Your task to perform on an android device: open app "Lyft - Rideshare, Bikes, Scooters & Transit" Image 0: 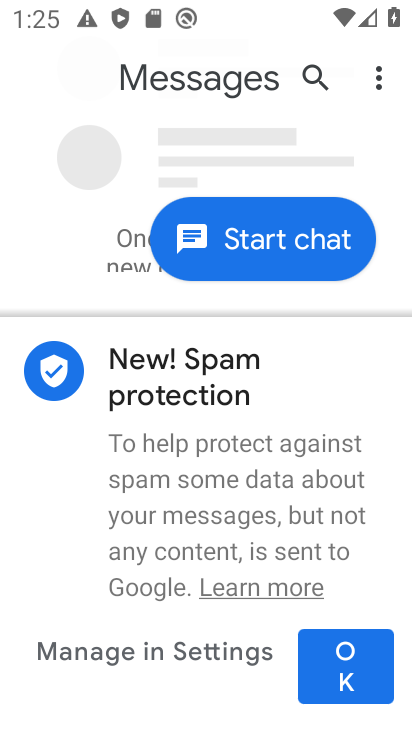
Step 0: press home button
Your task to perform on an android device: open app "Lyft - Rideshare, Bikes, Scooters & Transit" Image 1: 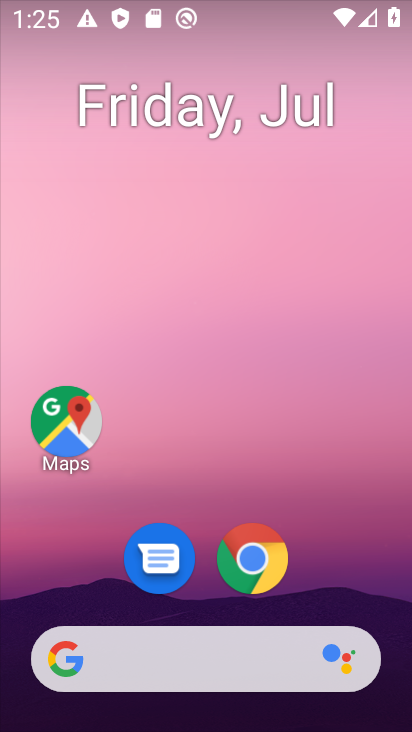
Step 1: drag from (398, 446) to (357, 26)
Your task to perform on an android device: open app "Lyft - Rideshare, Bikes, Scooters & Transit" Image 2: 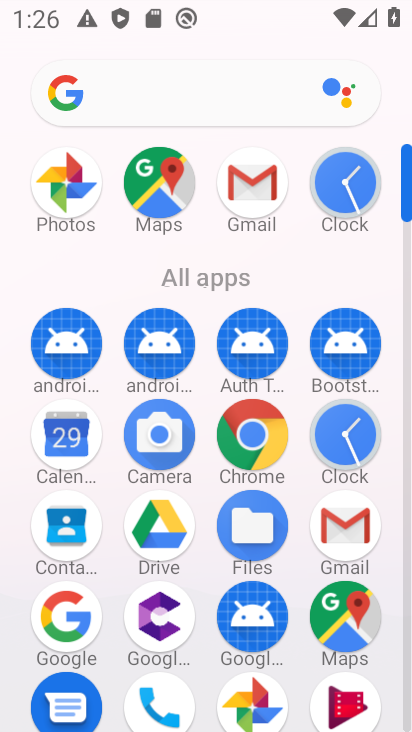
Step 2: click (407, 723)
Your task to perform on an android device: open app "Lyft - Rideshare, Bikes, Scooters & Transit" Image 3: 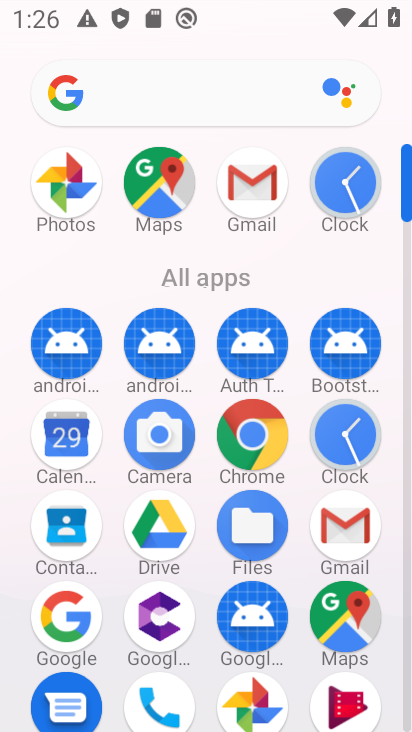
Step 3: click (407, 723)
Your task to perform on an android device: open app "Lyft - Rideshare, Bikes, Scooters & Transit" Image 4: 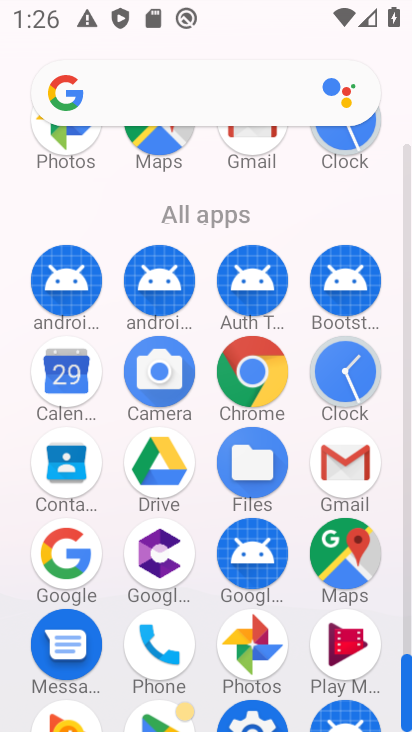
Step 4: click (160, 715)
Your task to perform on an android device: open app "Lyft - Rideshare, Bikes, Scooters & Transit" Image 5: 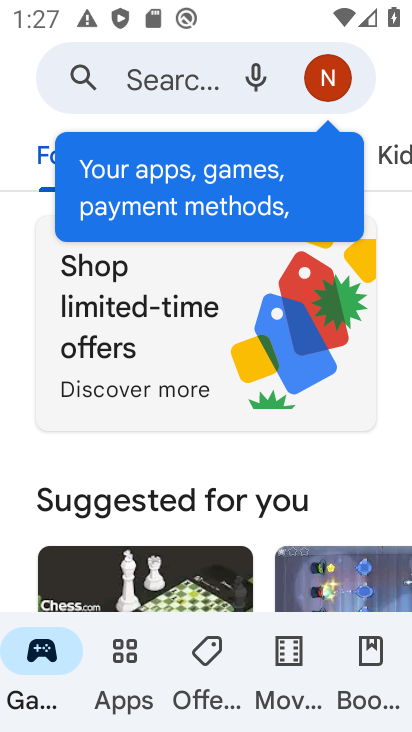
Step 5: click (97, 74)
Your task to perform on an android device: open app "Lyft - Rideshare, Bikes, Scooters & Transit" Image 6: 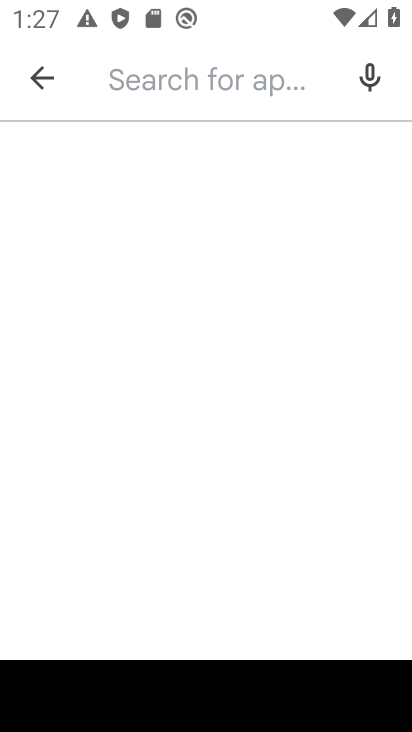
Step 6: type "Lyft - Rideshare, Bikes, Scooters & Transit""
Your task to perform on an android device: open app "Lyft - Rideshare, Bikes, Scooters & Transit" Image 7: 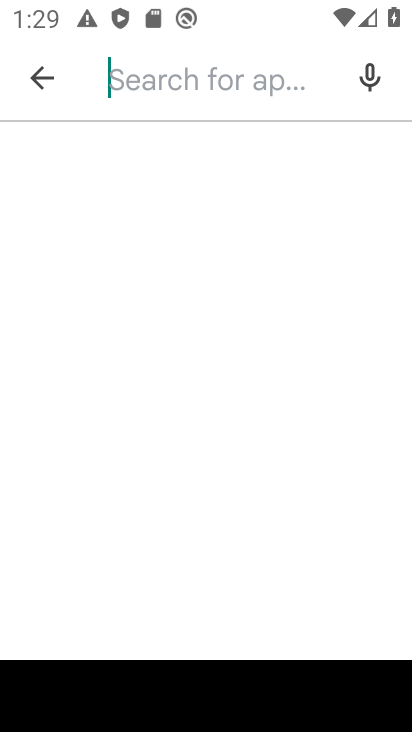
Step 7: type "Lyft Rideshare, Bikes, Scooters & transit"
Your task to perform on an android device: open app "Lyft - Rideshare, Bikes, Scooters & Transit" Image 8: 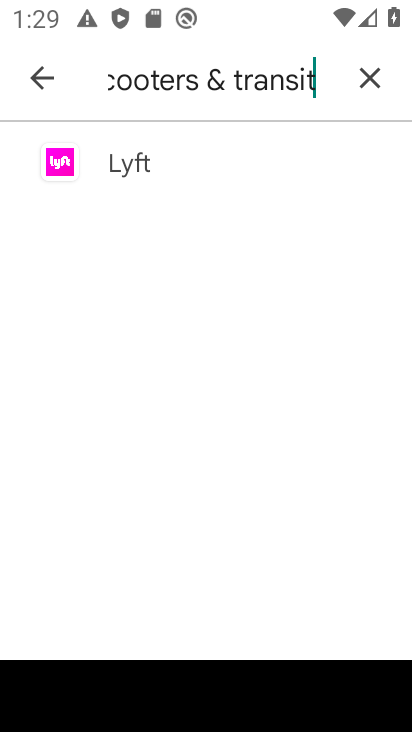
Step 8: click (161, 151)
Your task to perform on an android device: open app "Lyft - Rideshare, Bikes, Scooters & Transit" Image 9: 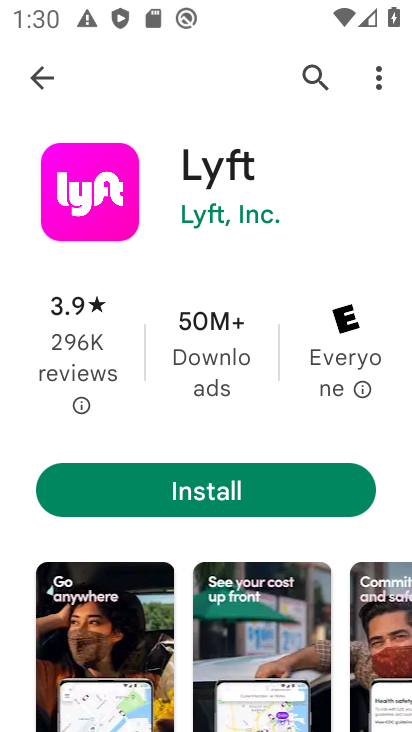
Step 9: task complete